Your task to perform on an android device: toggle wifi Image 0: 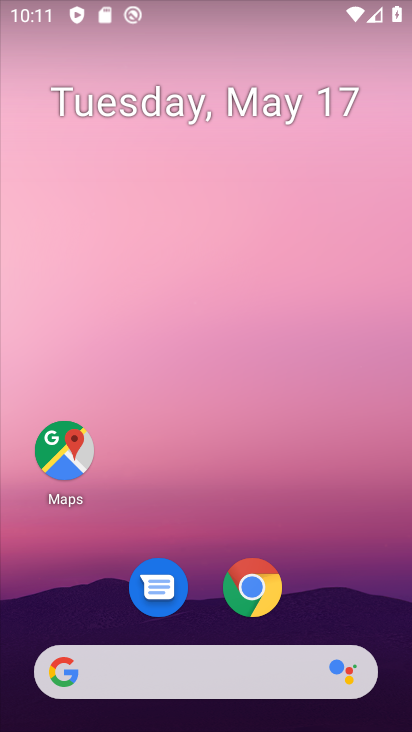
Step 0: drag from (247, 6) to (284, 528)
Your task to perform on an android device: toggle wifi Image 1: 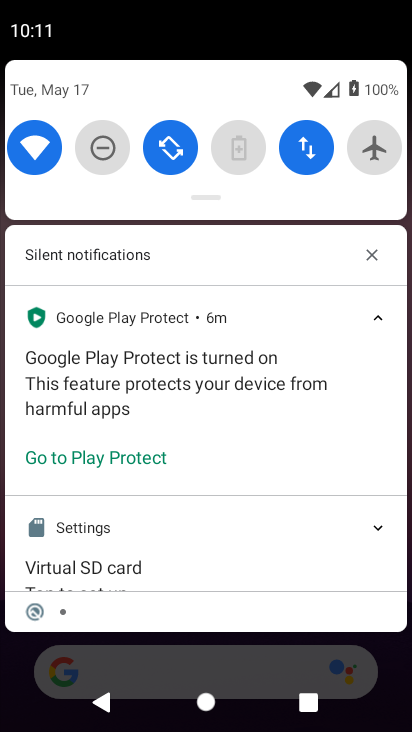
Step 1: click (30, 135)
Your task to perform on an android device: toggle wifi Image 2: 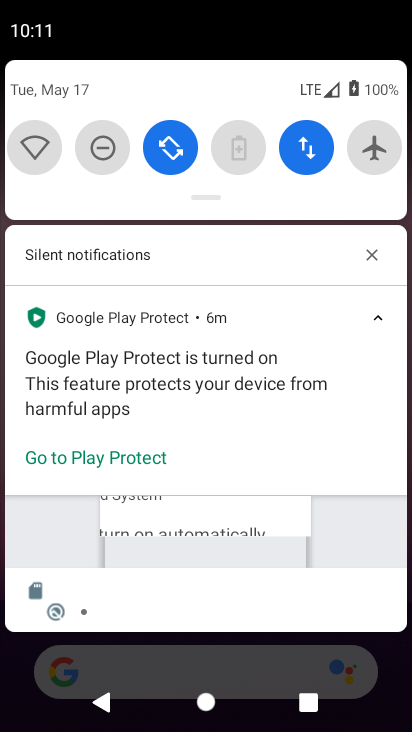
Step 2: task complete